Your task to perform on an android device: toggle javascript in the chrome app Image 0: 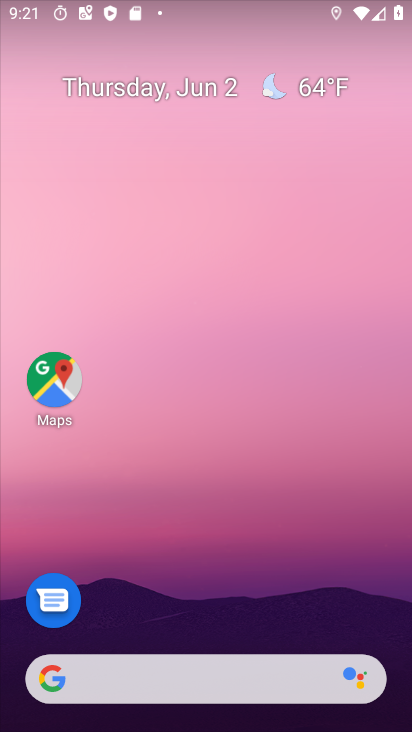
Step 0: drag from (216, 622) to (238, 50)
Your task to perform on an android device: toggle javascript in the chrome app Image 1: 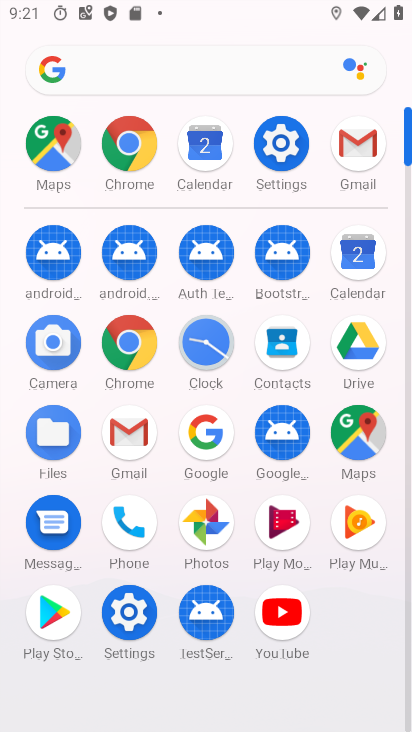
Step 1: click (130, 343)
Your task to perform on an android device: toggle javascript in the chrome app Image 2: 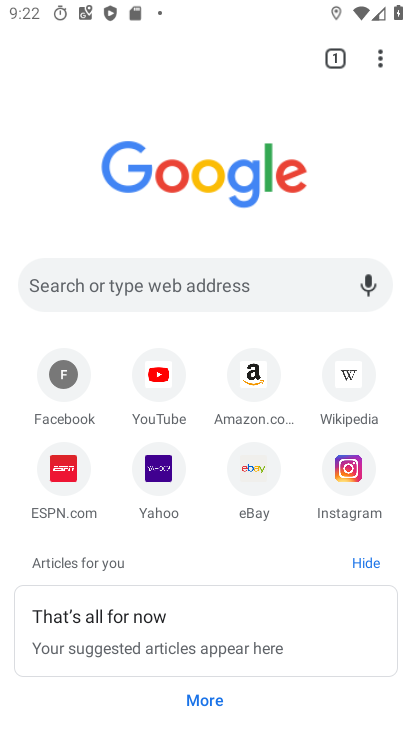
Step 2: click (371, 63)
Your task to perform on an android device: toggle javascript in the chrome app Image 3: 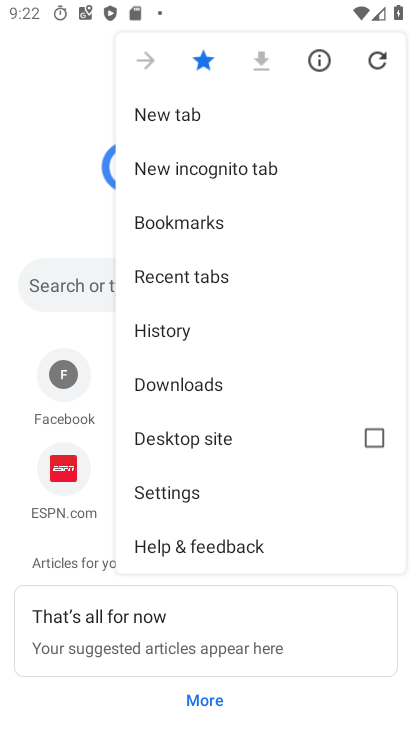
Step 3: click (182, 496)
Your task to perform on an android device: toggle javascript in the chrome app Image 4: 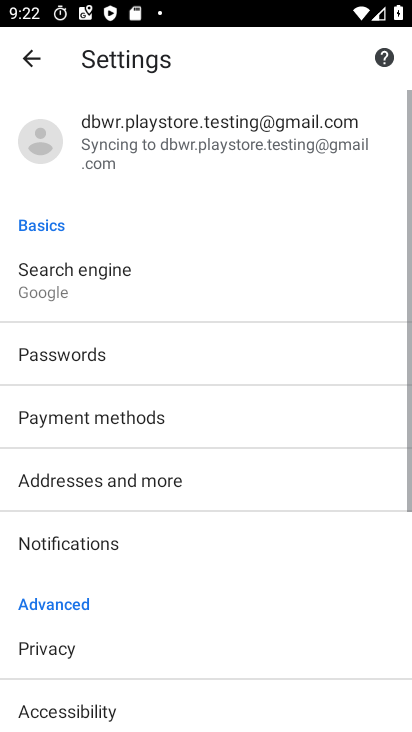
Step 4: drag from (159, 539) to (163, 138)
Your task to perform on an android device: toggle javascript in the chrome app Image 5: 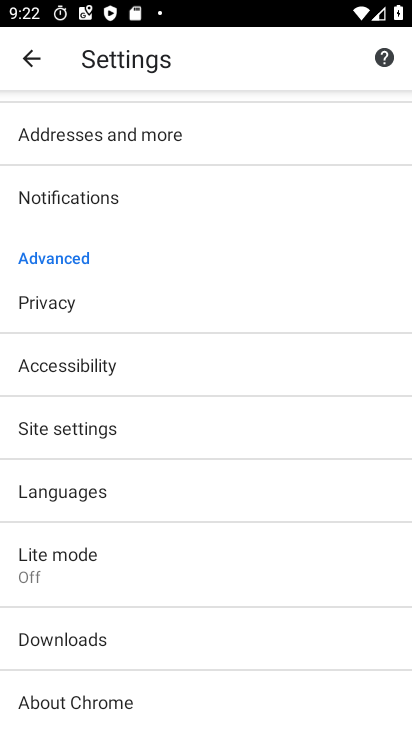
Step 5: click (101, 433)
Your task to perform on an android device: toggle javascript in the chrome app Image 6: 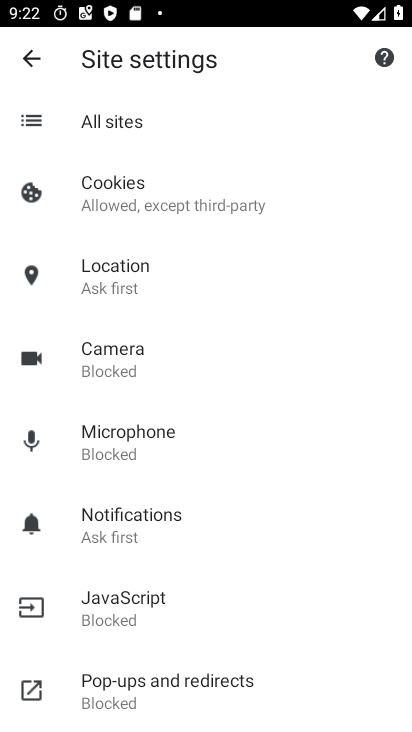
Step 6: click (192, 614)
Your task to perform on an android device: toggle javascript in the chrome app Image 7: 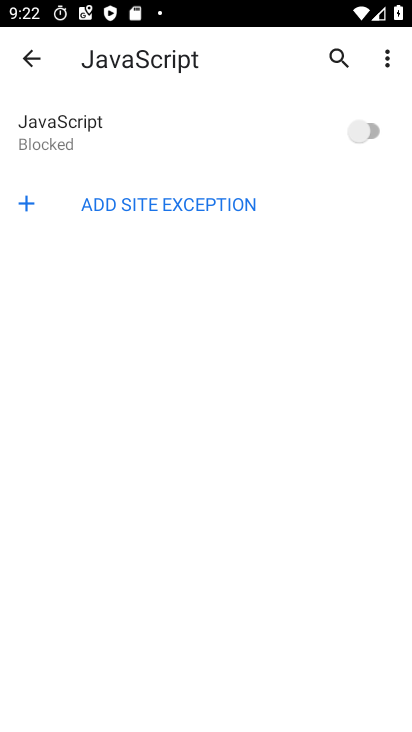
Step 7: click (366, 138)
Your task to perform on an android device: toggle javascript in the chrome app Image 8: 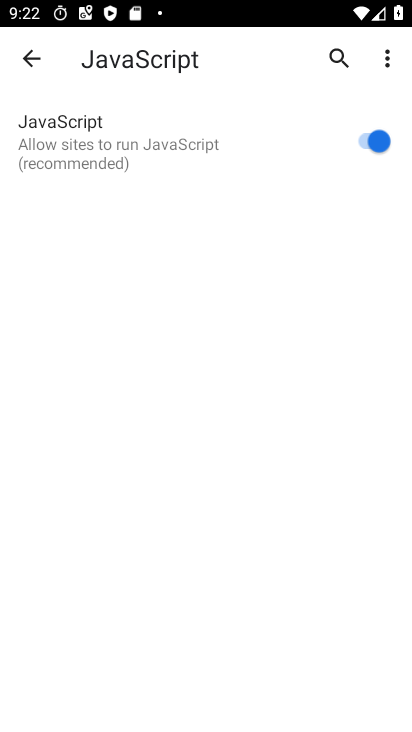
Step 8: task complete